Your task to perform on an android device: set default search engine in the chrome app Image 0: 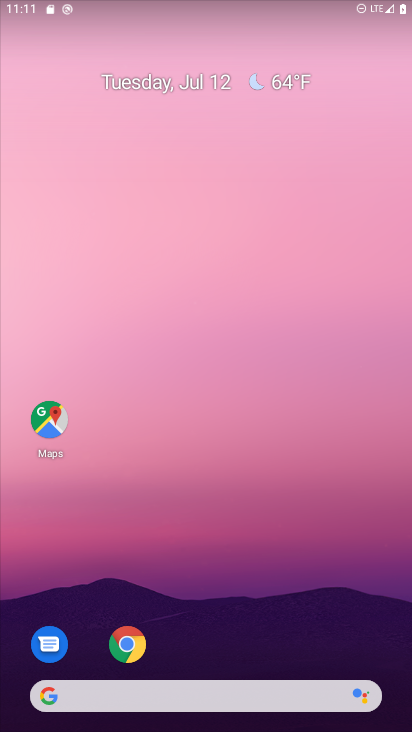
Step 0: click (132, 644)
Your task to perform on an android device: set default search engine in the chrome app Image 1: 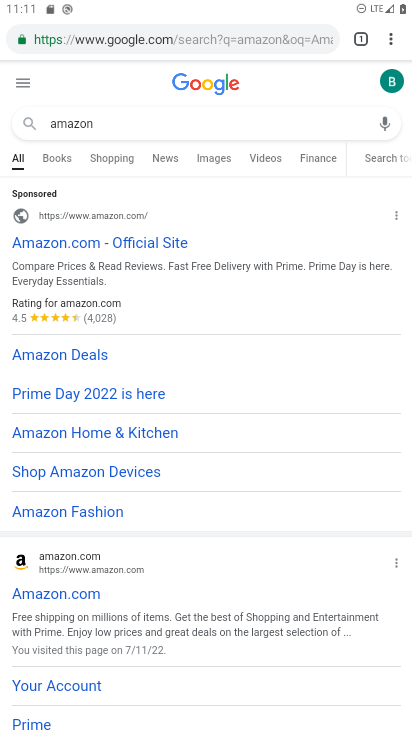
Step 1: click (399, 40)
Your task to perform on an android device: set default search engine in the chrome app Image 2: 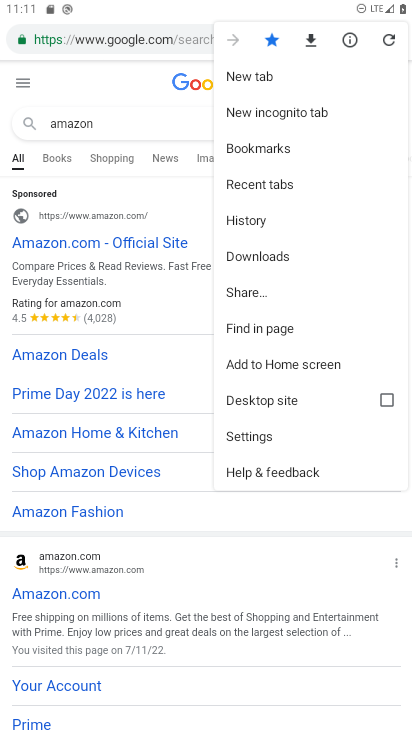
Step 2: click (233, 428)
Your task to perform on an android device: set default search engine in the chrome app Image 3: 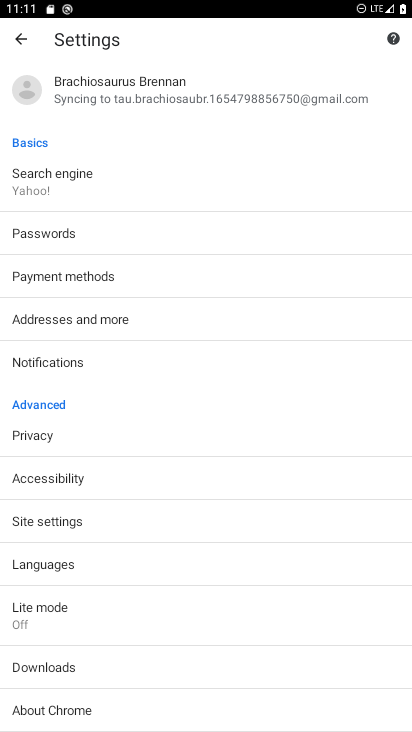
Step 3: click (87, 175)
Your task to perform on an android device: set default search engine in the chrome app Image 4: 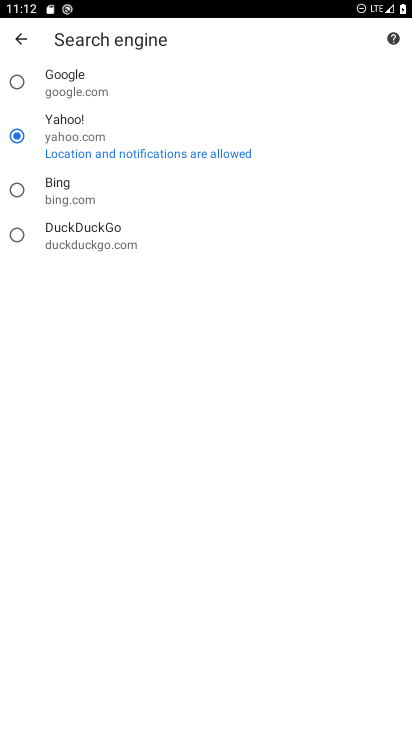
Step 4: click (92, 70)
Your task to perform on an android device: set default search engine in the chrome app Image 5: 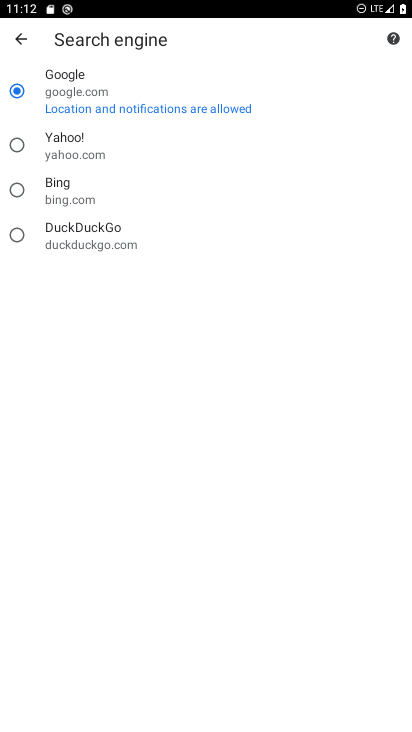
Step 5: task complete